Your task to perform on an android device: Open the stopwatch Image 0: 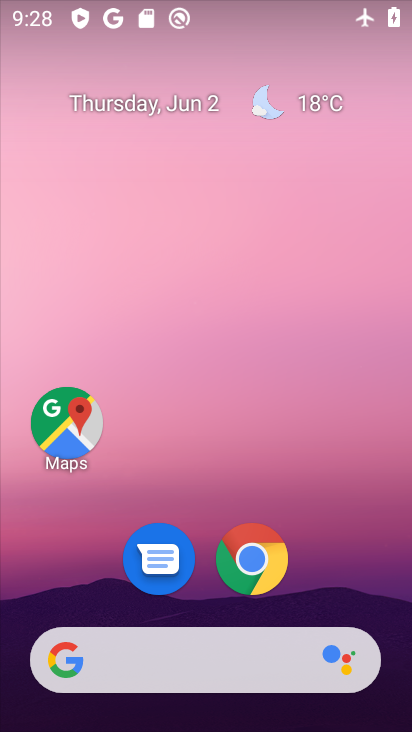
Step 0: drag from (332, 525) to (220, 73)
Your task to perform on an android device: Open the stopwatch Image 1: 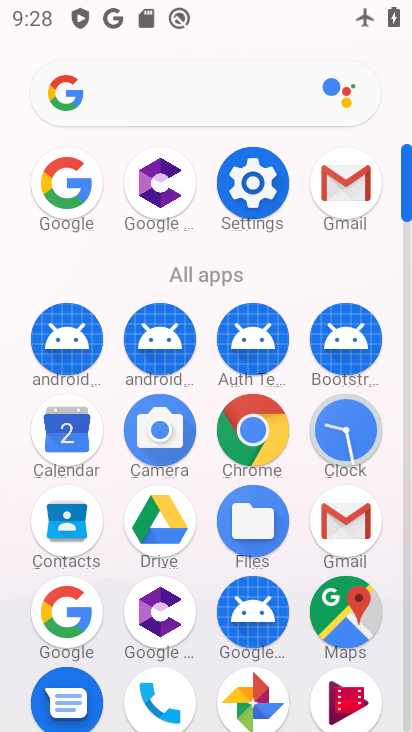
Step 1: click (347, 431)
Your task to perform on an android device: Open the stopwatch Image 2: 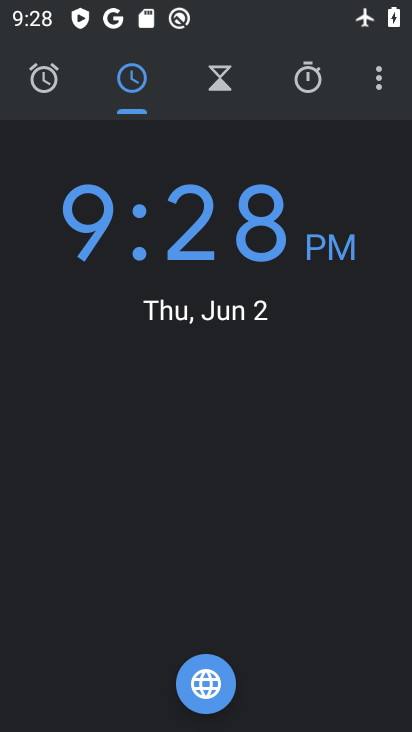
Step 2: click (310, 81)
Your task to perform on an android device: Open the stopwatch Image 3: 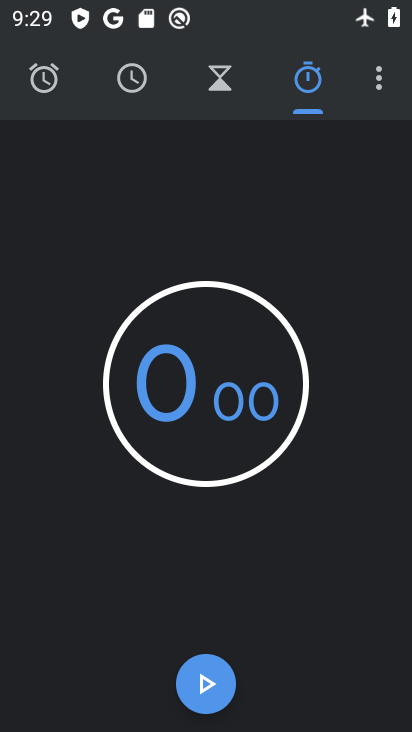
Step 3: task complete